Your task to perform on an android device: uninstall "Messenger Lite" Image 0: 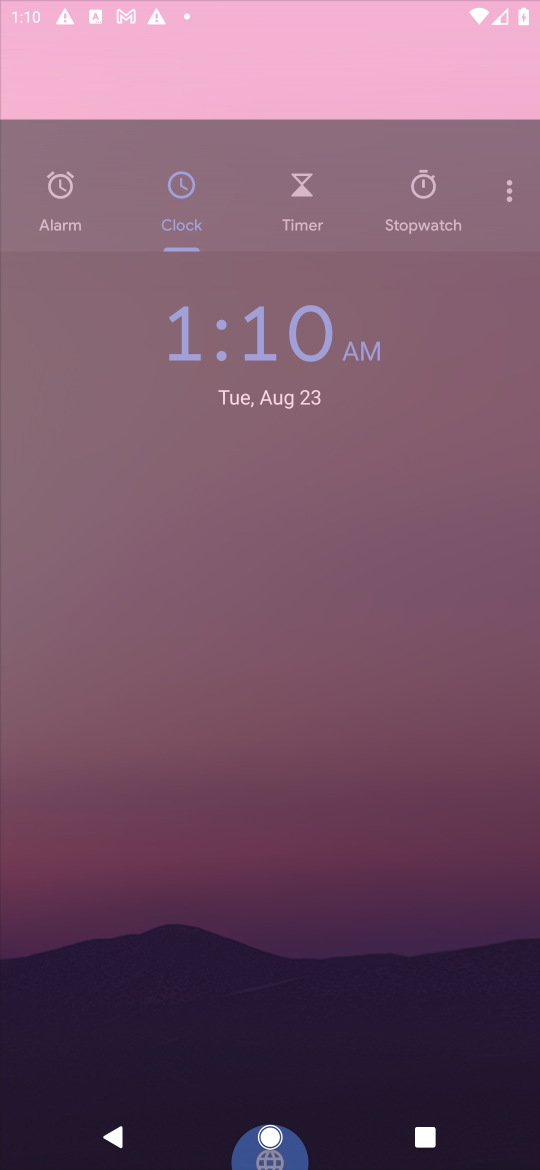
Step 0: press home button
Your task to perform on an android device: uninstall "Messenger Lite" Image 1: 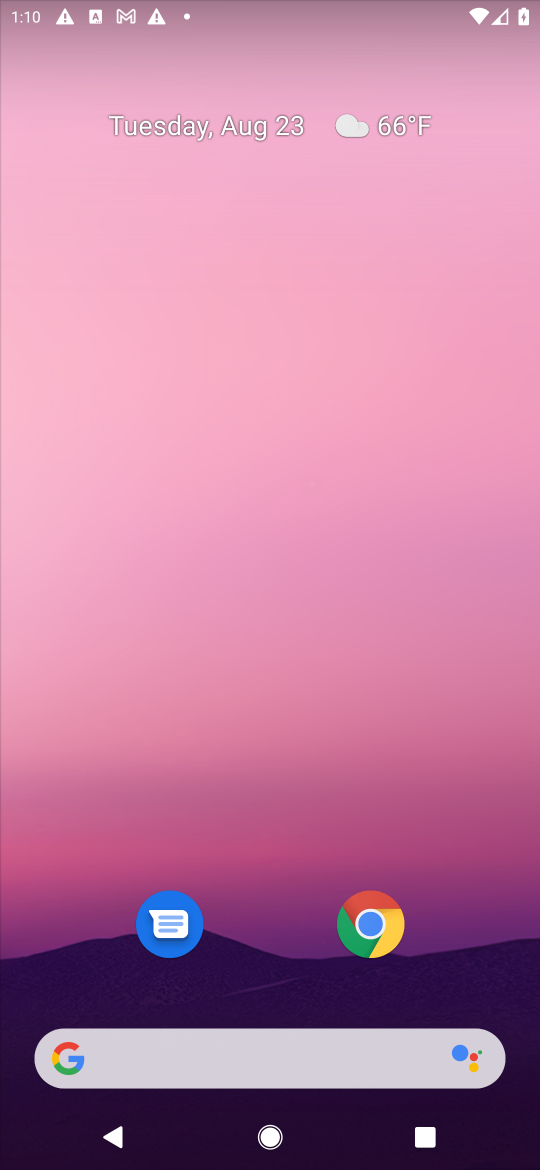
Step 1: drag from (460, 974) to (460, 91)
Your task to perform on an android device: uninstall "Messenger Lite" Image 2: 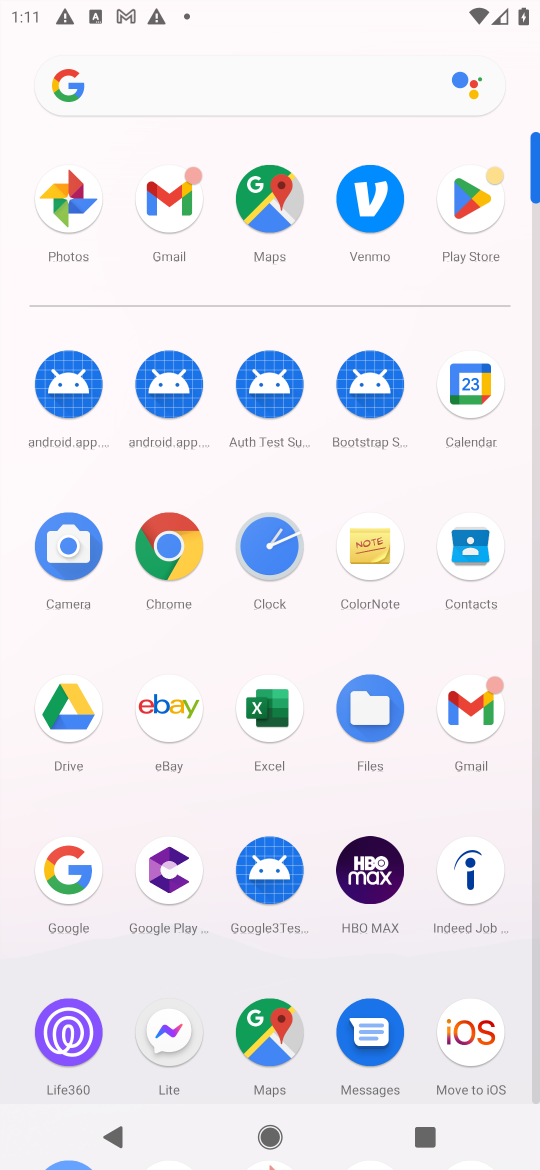
Step 2: click (463, 195)
Your task to perform on an android device: uninstall "Messenger Lite" Image 3: 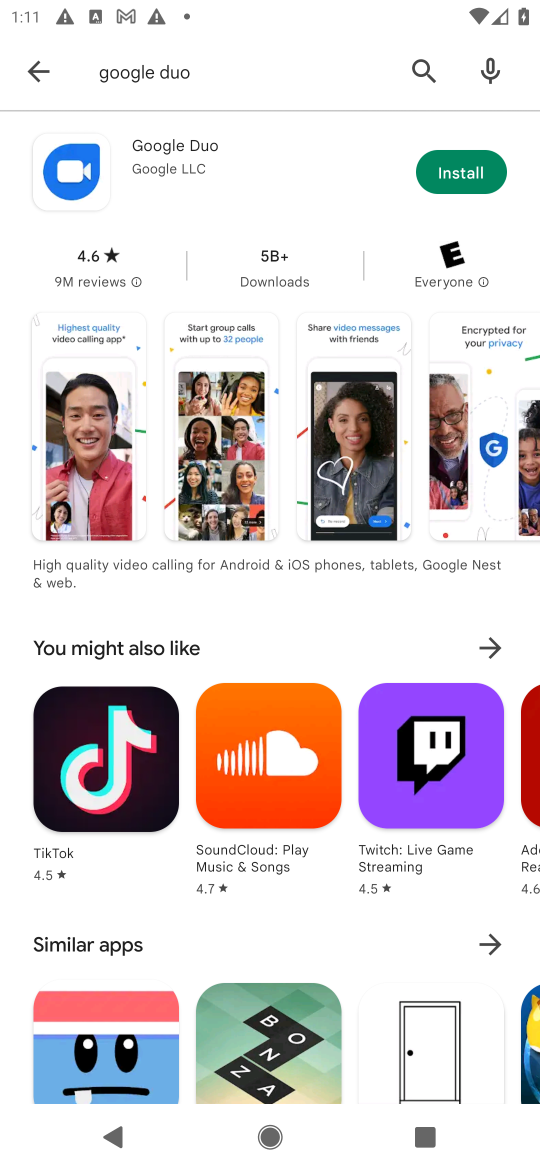
Step 3: press back button
Your task to perform on an android device: uninstall "Messenger Lite" Image 4: 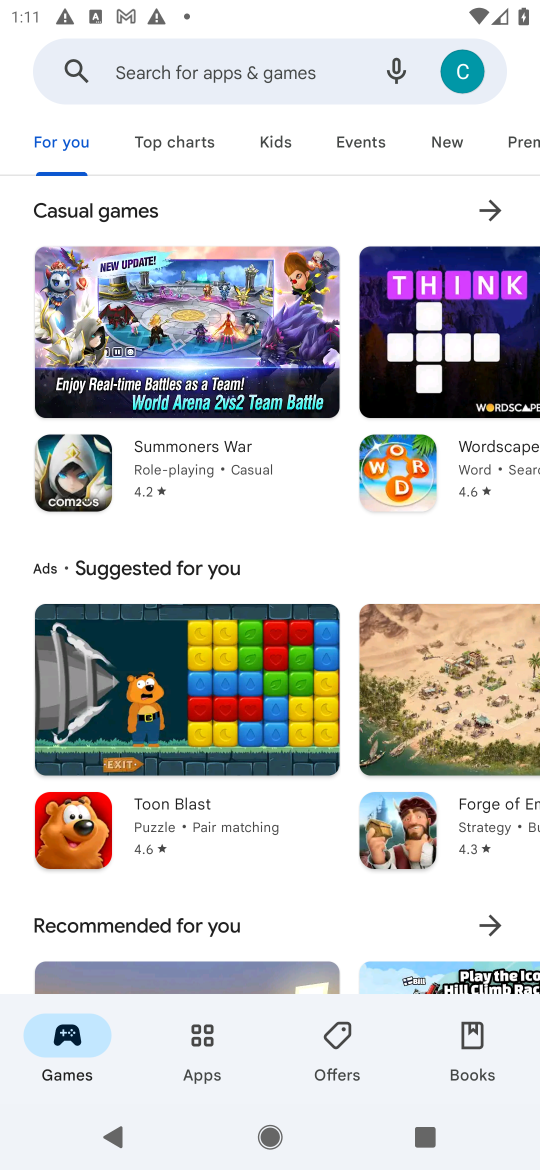
Step 4: click (236, 69)
Your task to perform on an android device: uninstall "Messenger Lite" Image 5: 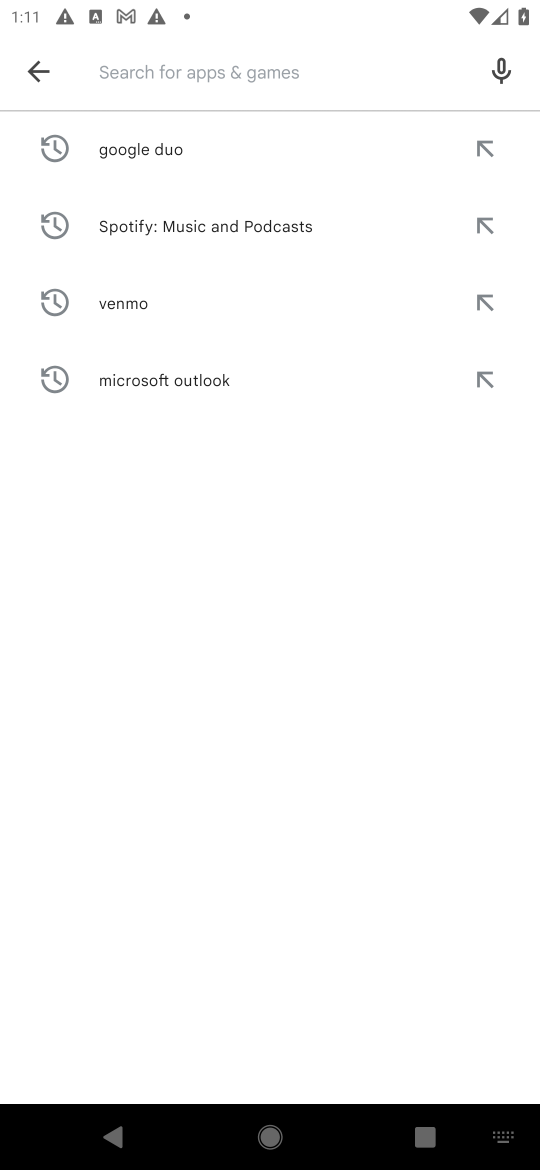
Step 5: type "Messenger Lite"
Your task to perform on an android device: uninstall "Messenger Lite" Image 6: 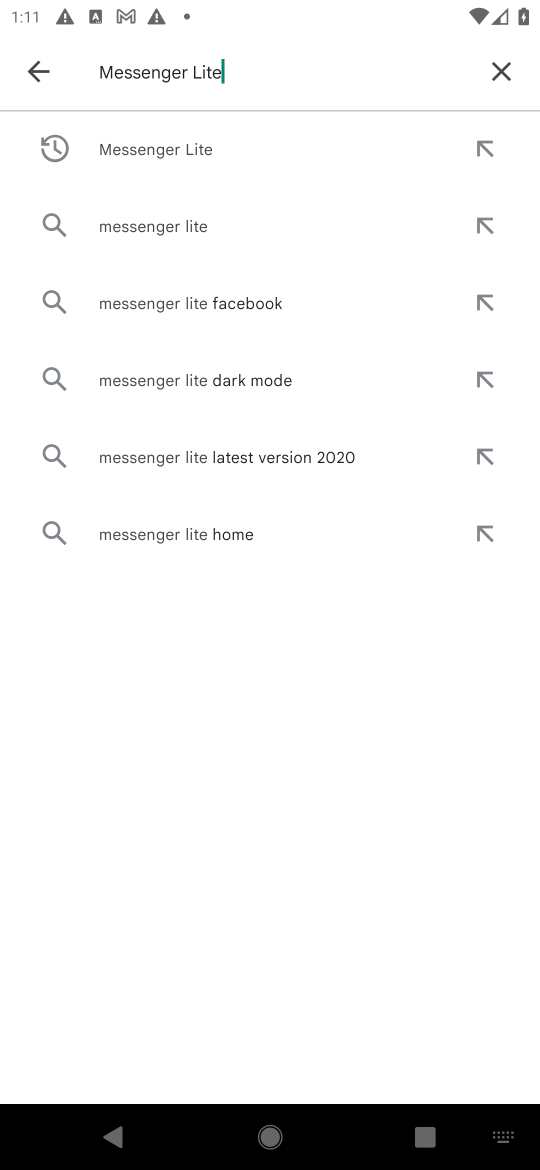
Step 6: press enter
Your task to perform on an android device: uninstall "Messenger Lite" Image 7: 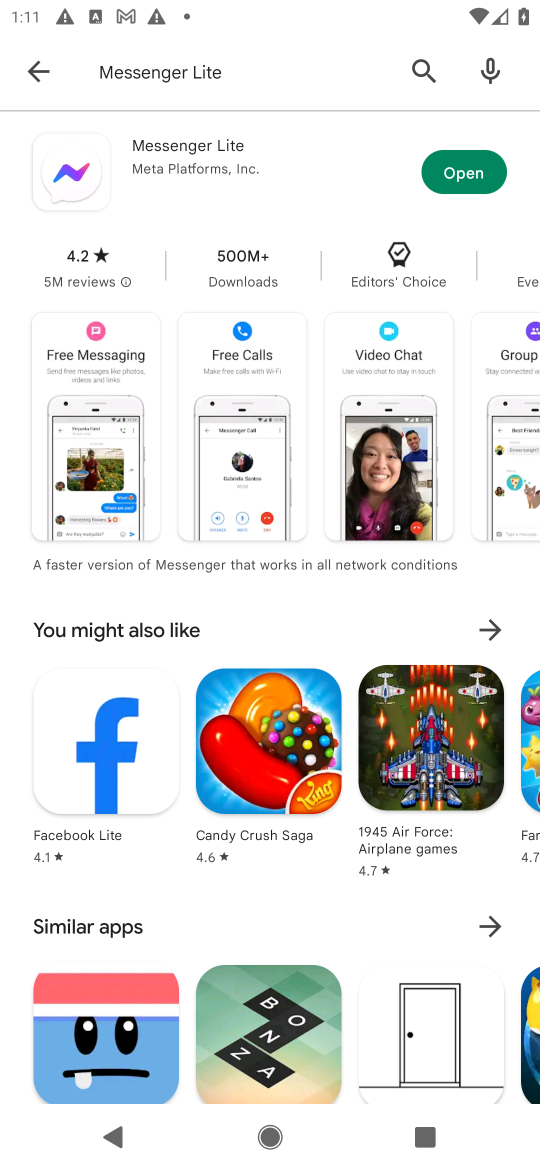
Step 7: task complete